Your task to perform on an android device: Go to CNN.com Image 0: 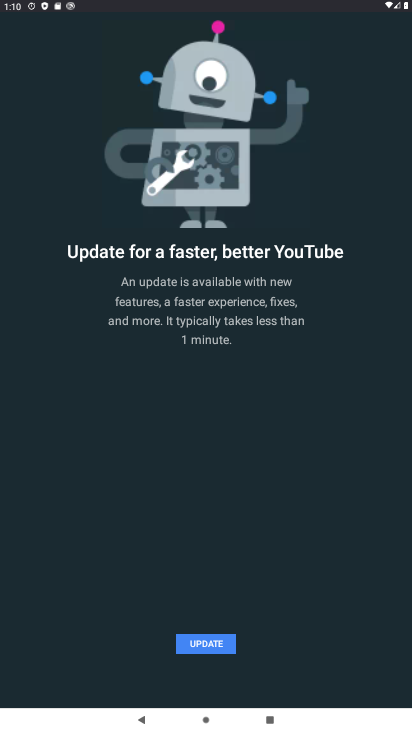
Step 0: press back button
Your task to perform on an android device: Go to CNN.com Image 1: 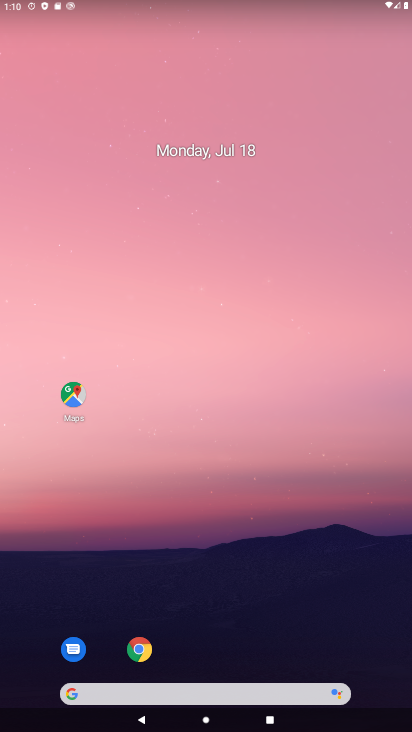
Step 1: drag from (223, 675) to (301, 12)
Your task to perform on an android device: Go to CNN.com Image 2: 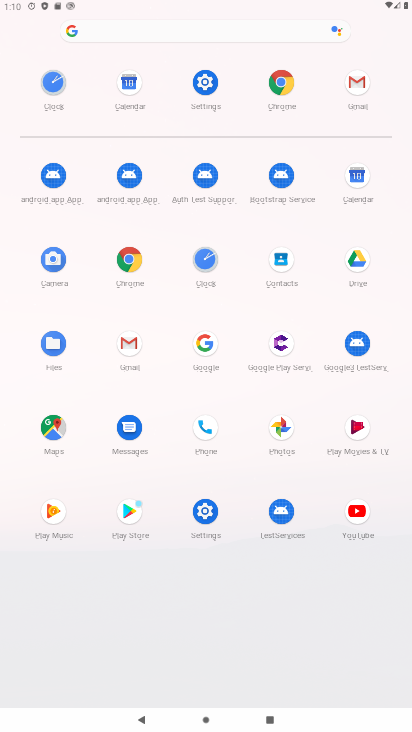
Step 2: click (131, 262)
Your task to perform on an android device: Go to CNN.com Image 3: 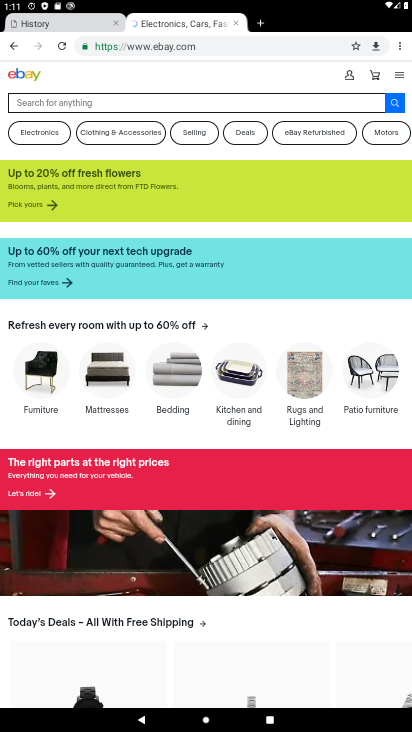
Step 3: click (259, 25)
Your task to perform on an android device: Go to CNN.com Image 4: 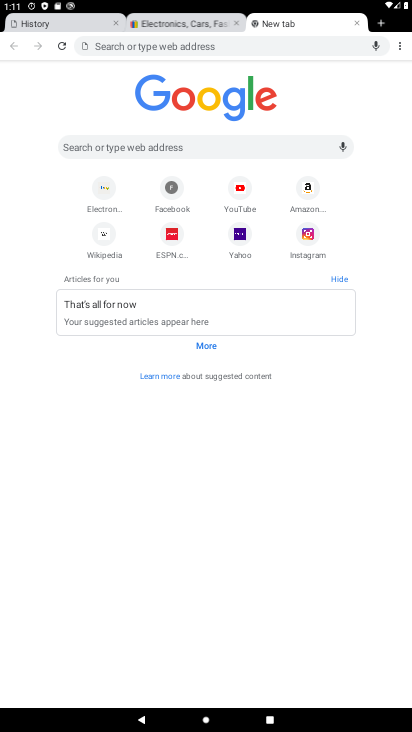
Step 4: click (171, 46)
Your task to perform on an android device: Go to CNN.com Image 5: 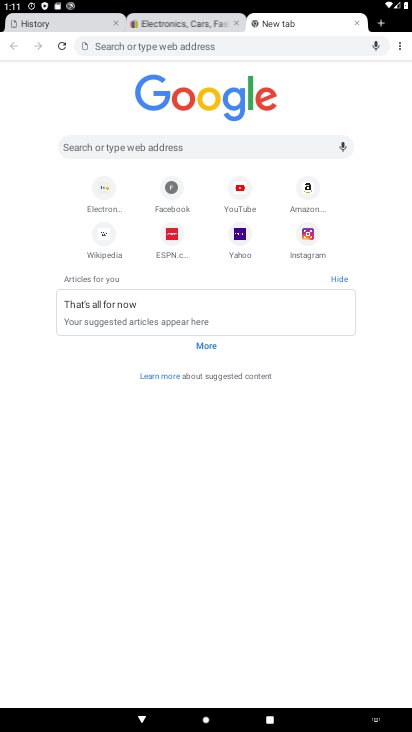
Step 5: type "cnn"
Your task to perform on an android device: Go to CNN.com Image 6: 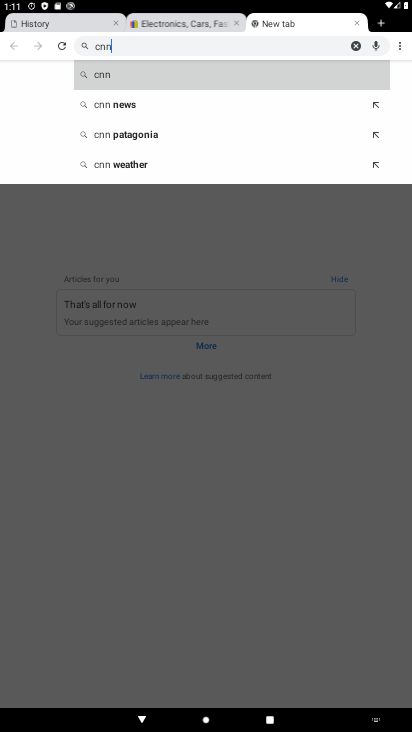
Step 6: type ""
Your task to perform on an android device: Go to CNN.com Image 7: 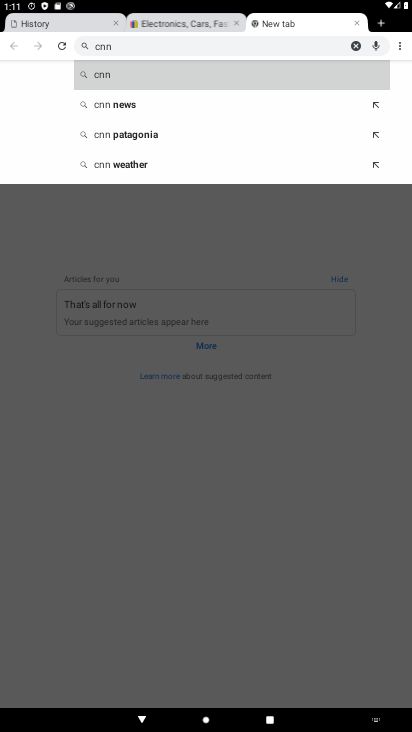
Step 7: click (131, 80)
Your task to perform on an android device: Go to CNN.com Image 8: 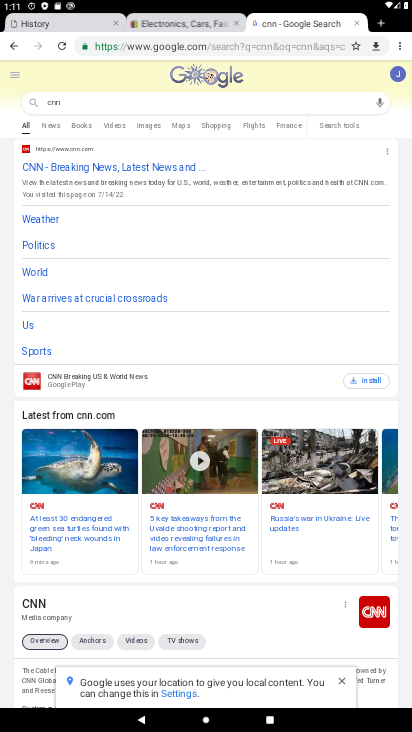
Step 8: click (44, 171)
Your task to perform on an android device: Go to CNN.com Image 9: 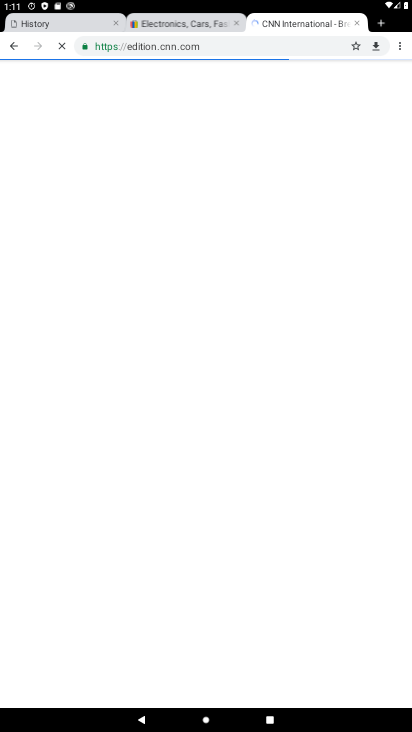
Step 9: task complete